Your task to perform on an android device: Go to Reddit.com Image 0: 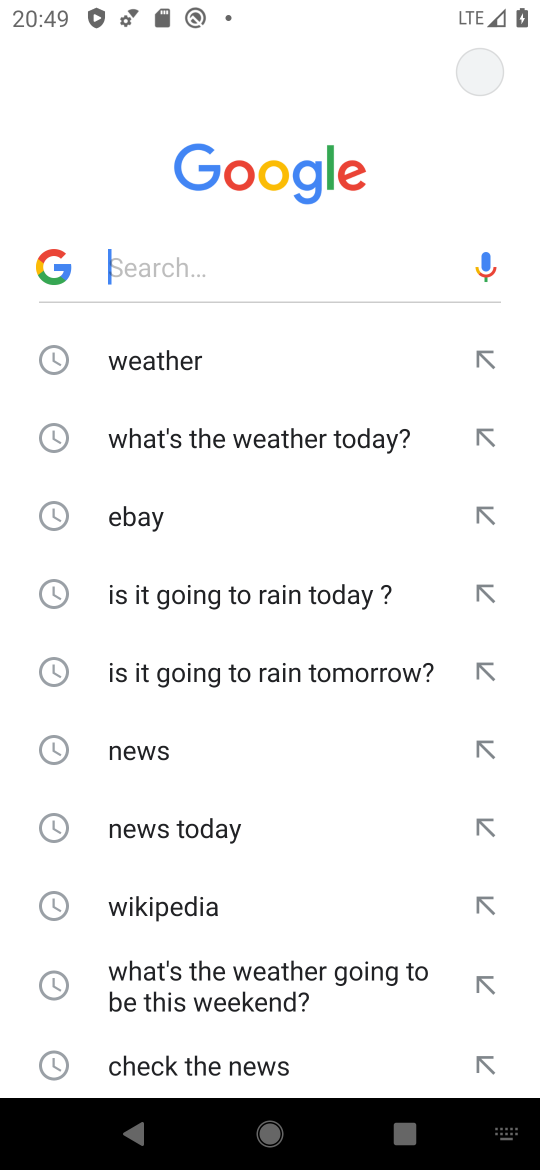
Step 0: press back button
Your task to perform on an android device: Go to Reddit.com Image 1: 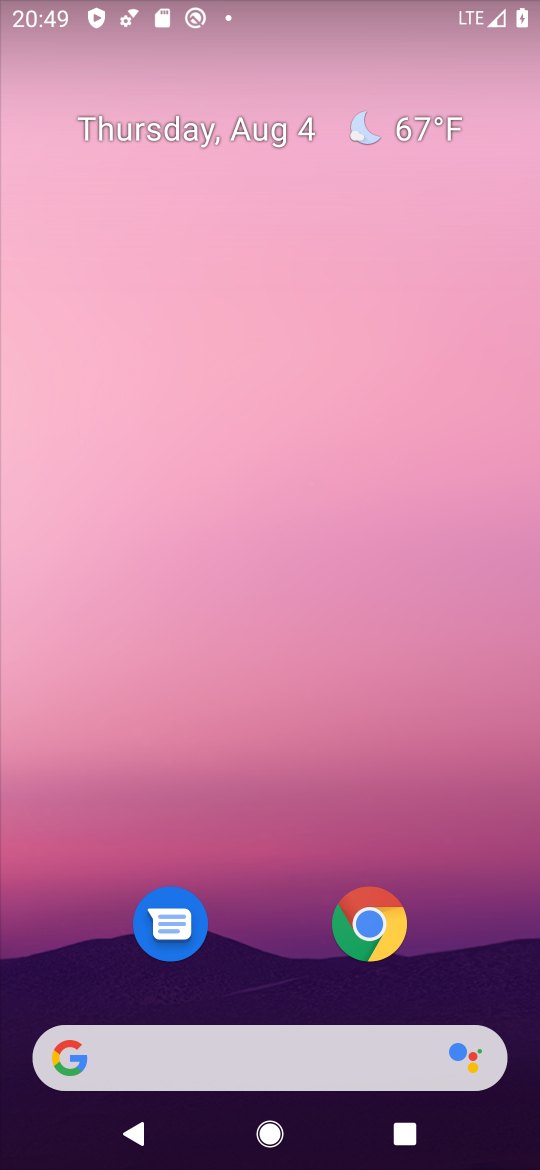
Step 1: click (363, 942)
Your task to perform on an android device: Go to Reddit.com Image 2: 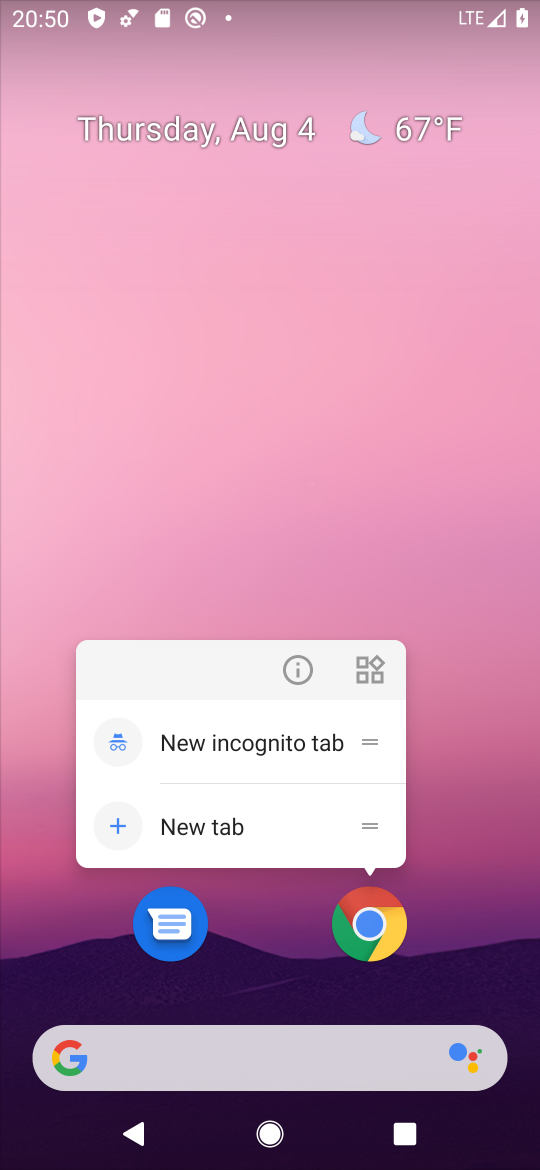
Step 2: click (375, 933)
Your task to perform on an android device: Go to Reddit.com Image 3: 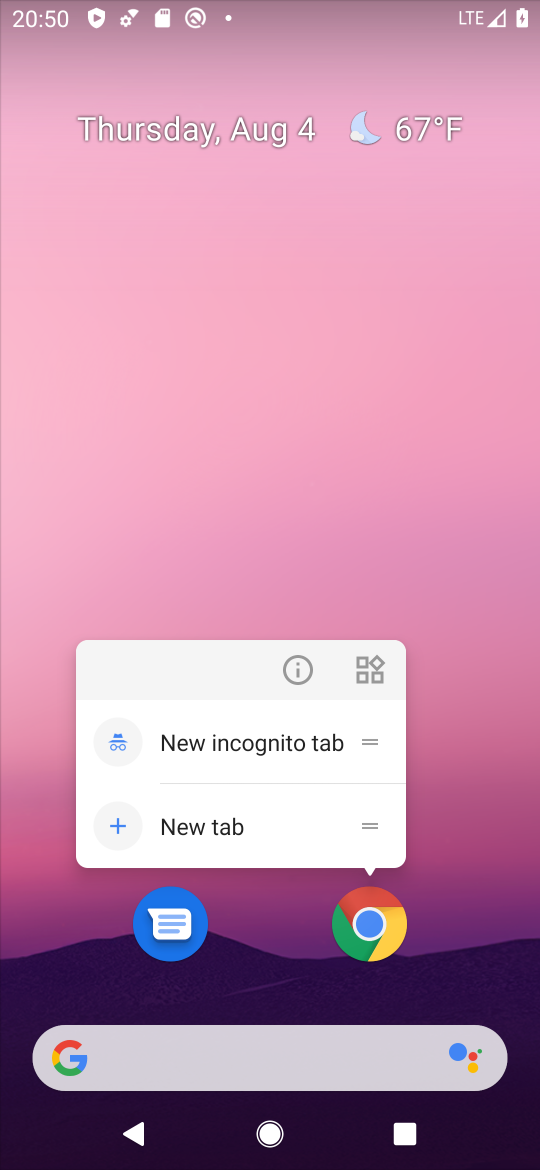
Step 3: click (389, 923)
Your task to perform on an android device: Go to Reddit.com Image 4: 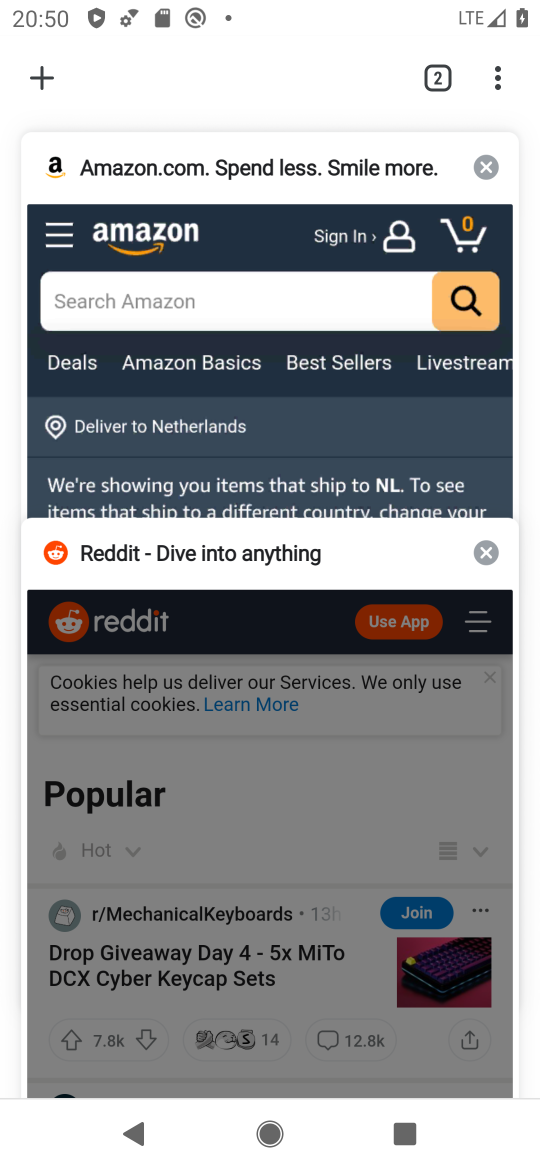
Step 4: click (30, 62)
Your task to perform on an android device: Go to Reddit.com Image 5: 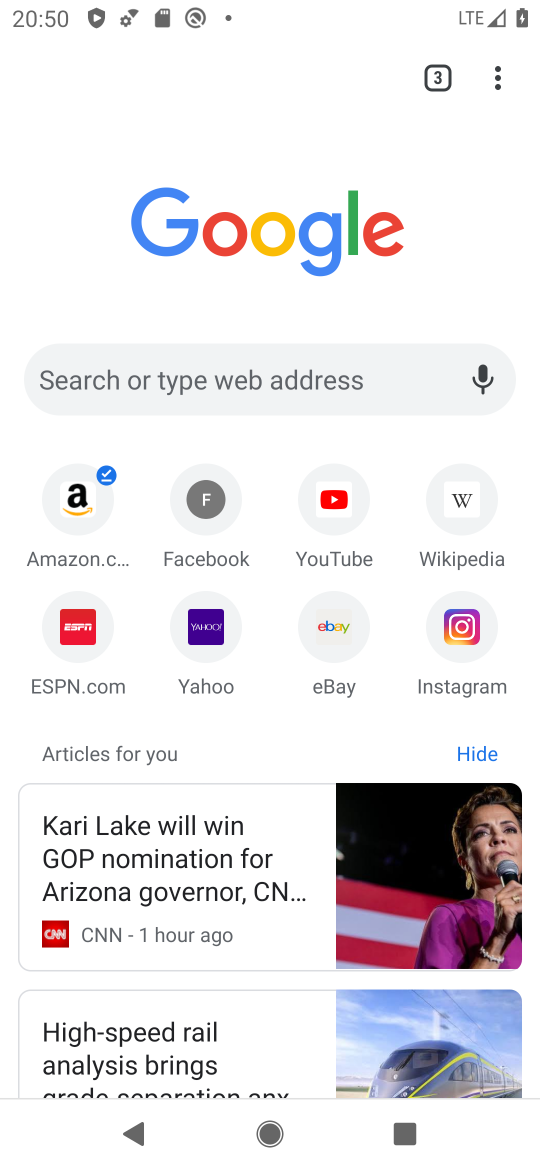
Step 5: click (187, 380)
Your task to perform on an android device: Go to Reddit.com Image 6: 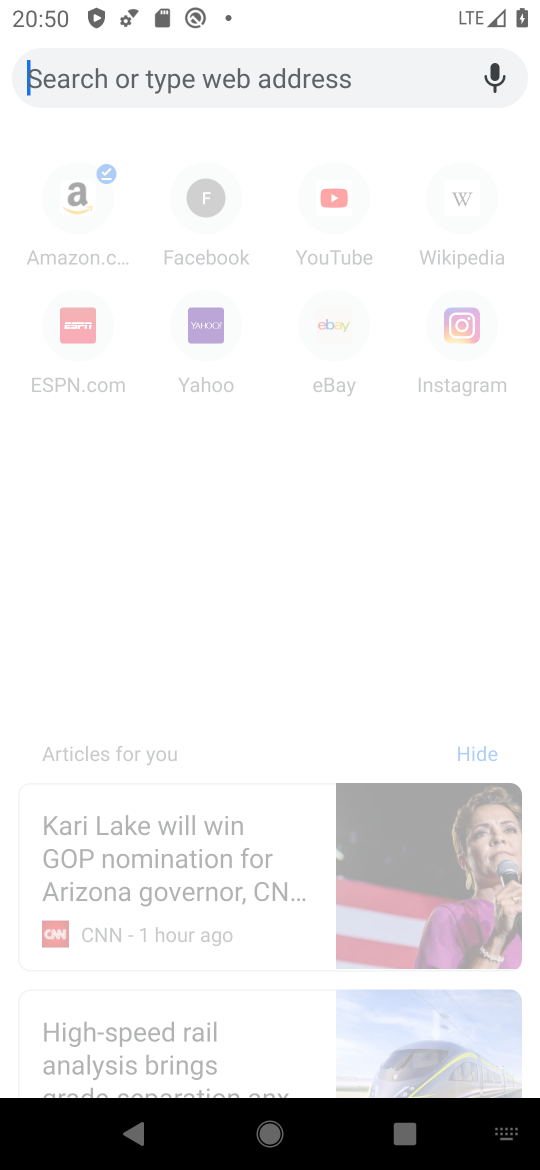
Step 6: type "Reddit.com"
Your task to perform on an android device: Go to Reddit.com Image 7: 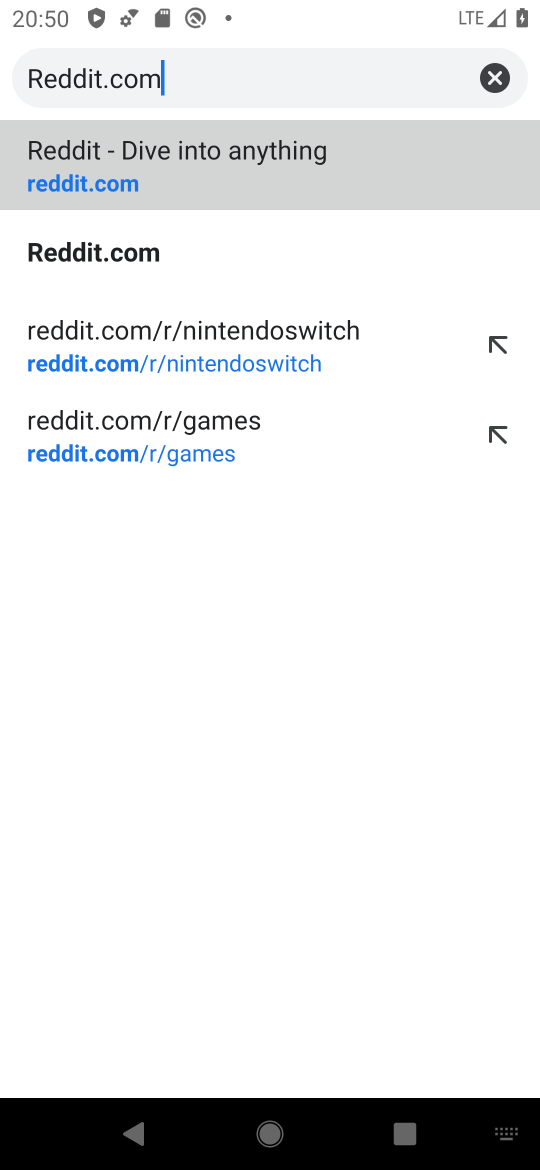
Step 7: type ""
Your task to perform on an android device: Go to Reddit.com Image 8: 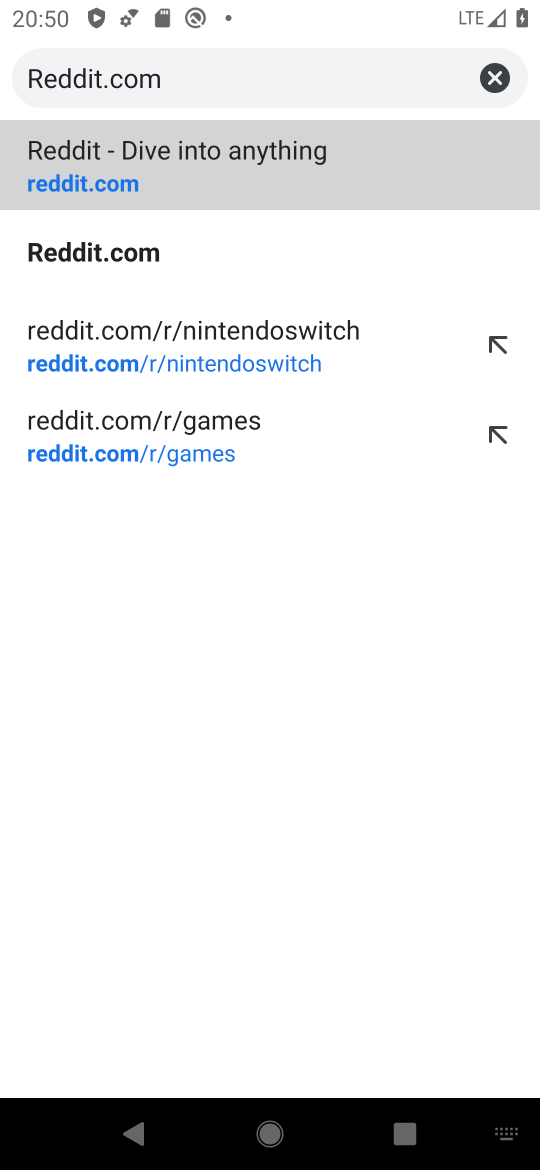
Step 8: click (142, 185)
Your task to perform on an android device: Go to Reddit.com Image 9: 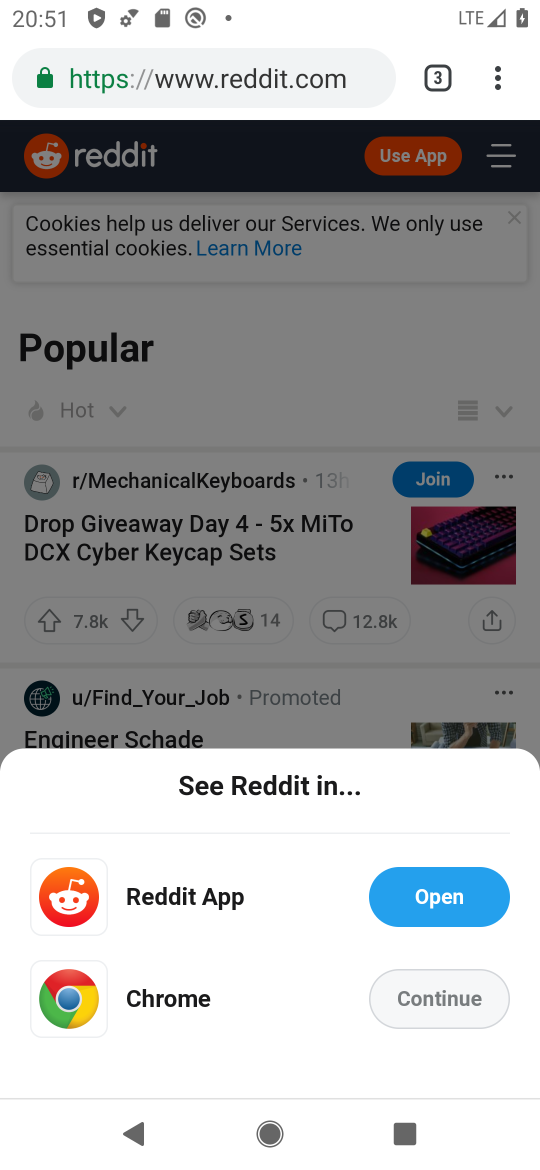
Step 9: click (470, 891)
Your task to perform on an android device: Go to Reddit.com Image 10: 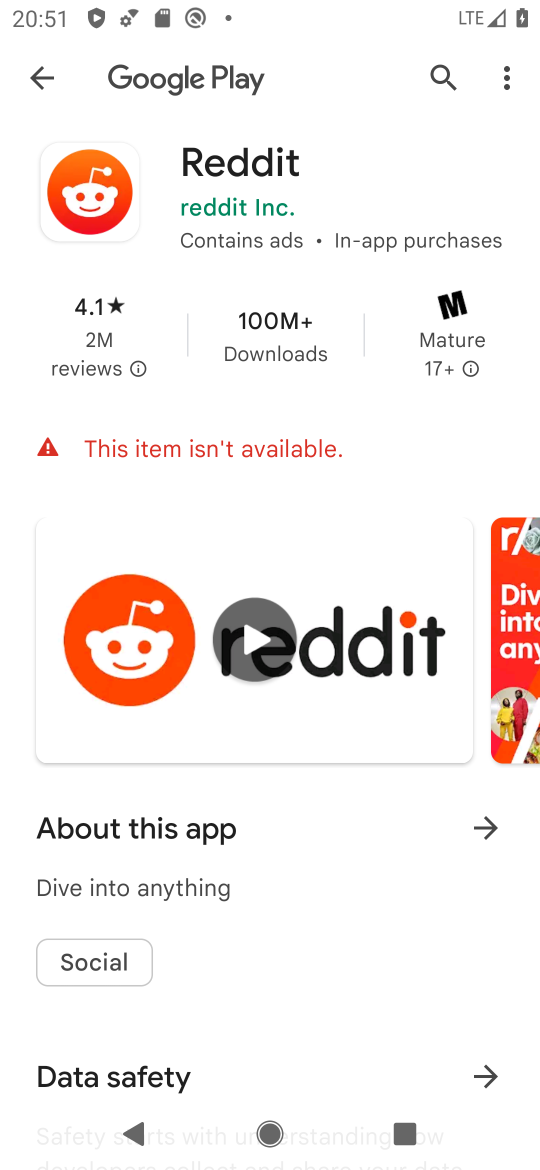
Step 10: task complete